Your task to perform on an android device: turn on showing notifications on the lock screen Image 0: 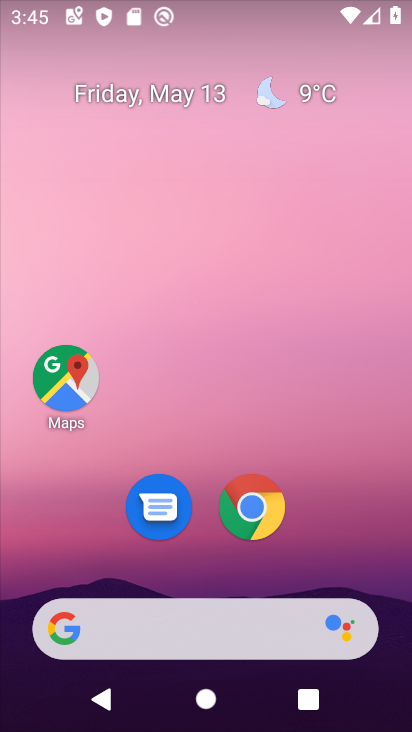
Step 0: drag from (350, 382) to (324, 48)
Your task to perform on an android device: turn on showing notifications on the lock screen Image 1: 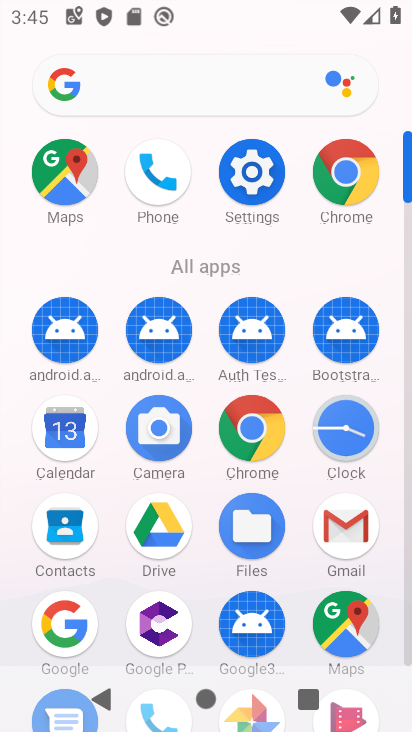
Step 1: click (264, 176)
Your task to perform on an android device: turn on showing notifications on the lock screen Image 2: 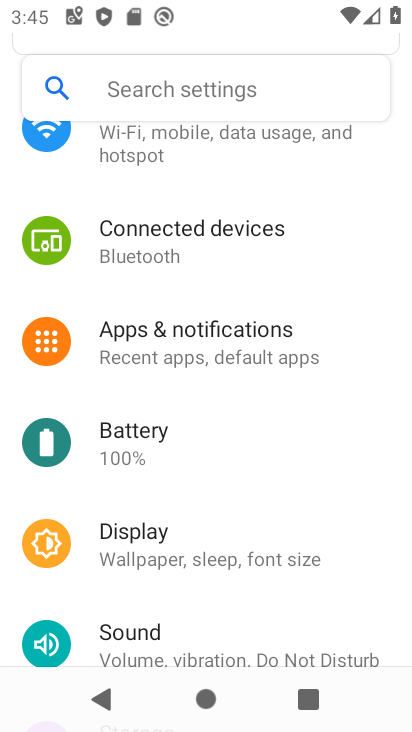
Step 2: click (241, 333)
Your task to perform on an android device: turn on showing notifications on the lock screen Image 3: 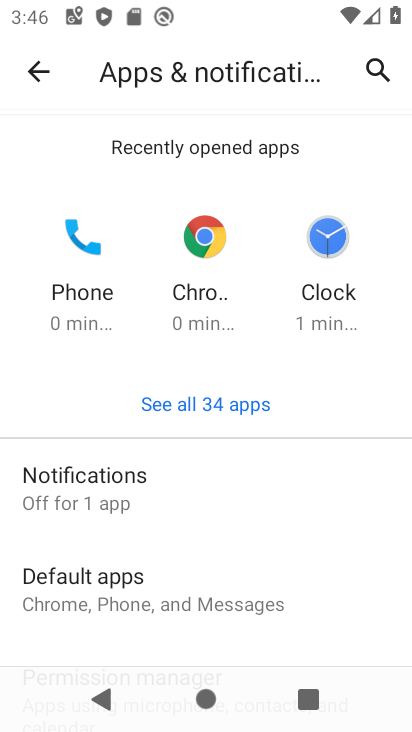
Step 3: click (71, 500)
Your task to perform on an android device: turn on showing notifications on the lock screen Image 4: 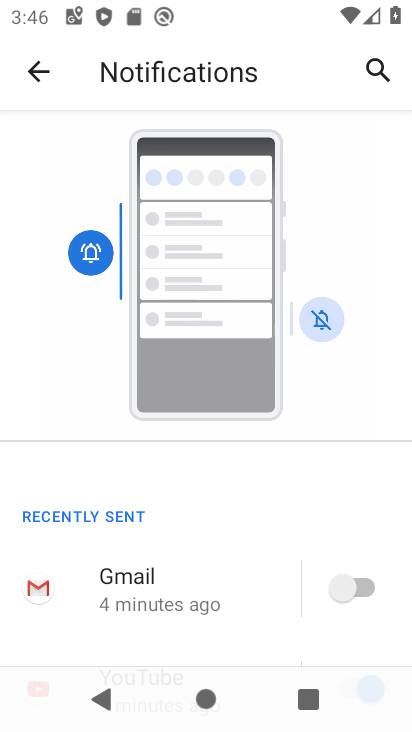
Step 4: drag from (111, 614) to (130, 266)
Your task to perform on an android device: turn on showing notifications on the lock screen Image 5: 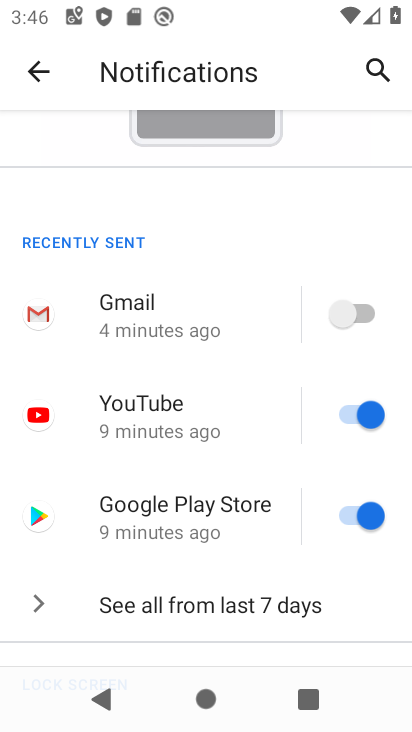
Step 5: drag from (137, 563) to (147, 246)
Your task to perform on an android device: turn on showing notifications on the lock screen Image 6: 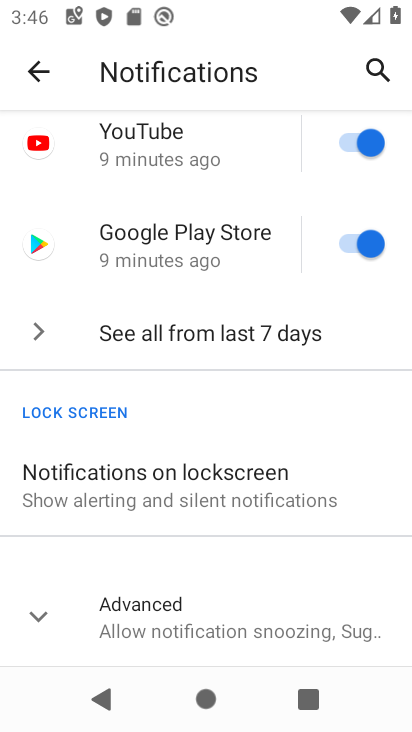
Step 6: click (144, 482)
Your task to perform on an android device: turn on showing notifications on the lock screen Image 7: 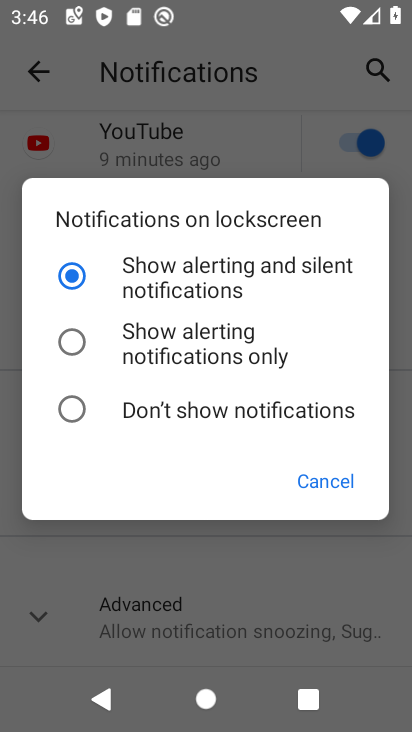
Step 7: click (86, 342)
Your task to perform on an android device: turn on showing notifications on the lock screen Image 8: 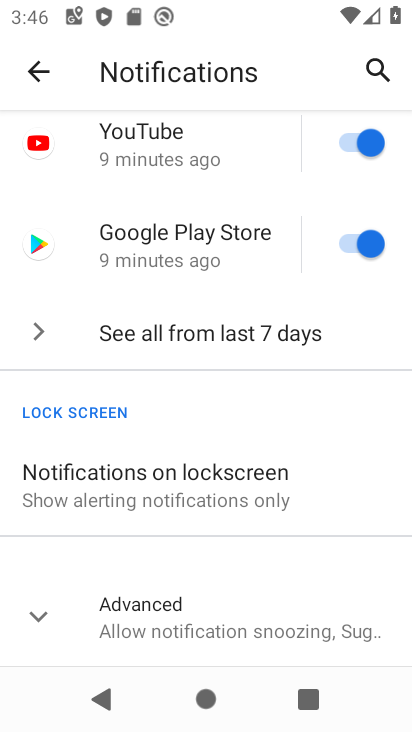
Step 8: task complete